Your task to perform on an android device: Open internet settings Image 0: 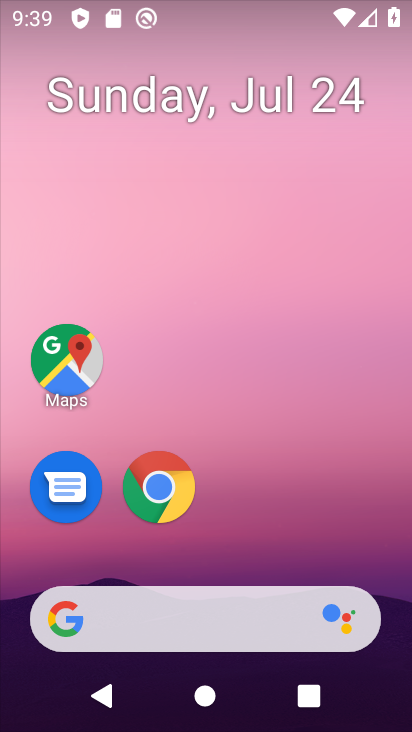
Step 0: drag from (228, 513) to (246, 0)
Your task to perform on an android device: Open internet settings Image 1: 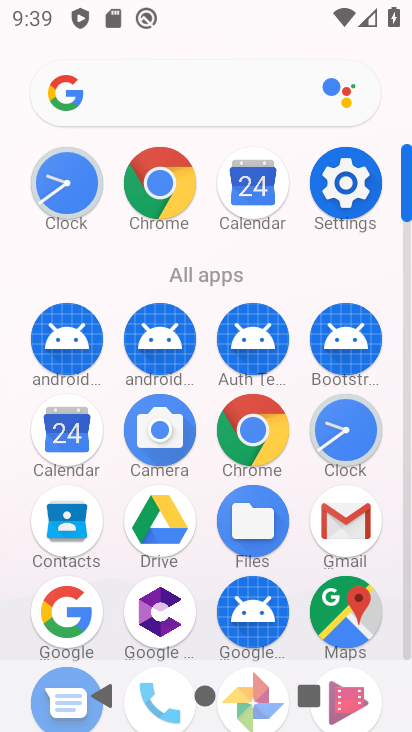
Step 1: click (343, 180)
Your task to perform on an android device: Open internet settings Image 2: 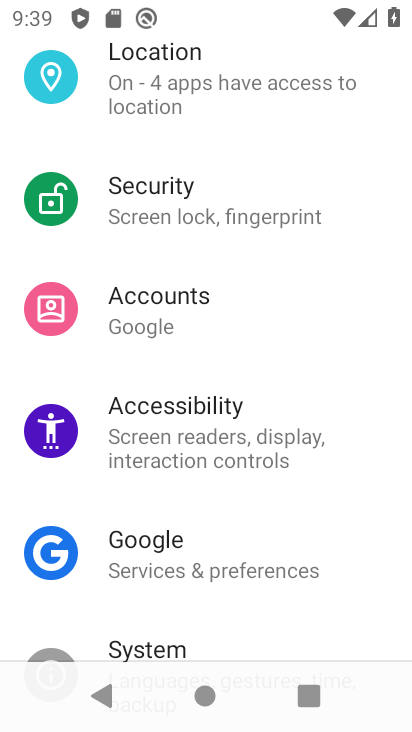
Step 2: drag from (201, 105) to (199, 717)
Your task to perform on an android device: Open internet settings Image 3: 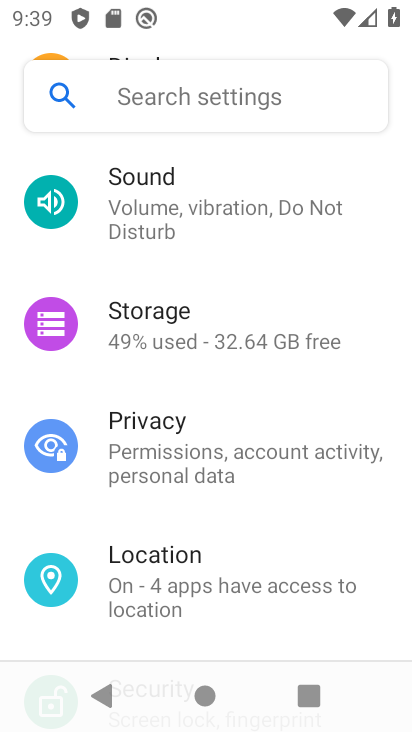
Step 3: drag from (230, 178) to (227, 624)
Your task to perform on an android device: Open internet settings Image 4: 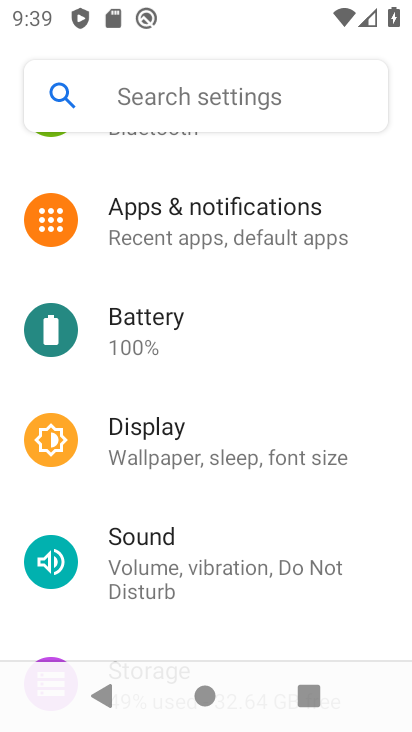
Step 4: drag from (226, 220) to (227, 644)
Your task to perform on an android device: Open internet settings Image 5: 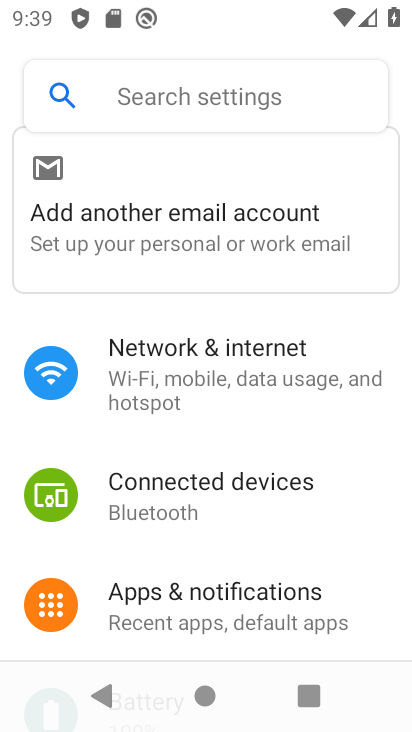
Step 5: click (224, 373)
Your task to perform on an android device: Open internet settings Image 6: 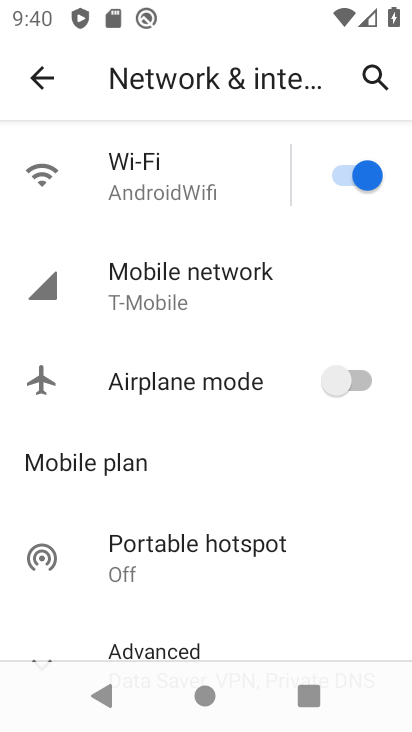
Step 6: task complete